Your task to perform on an android device: add a contact in the contacts app Image 0: 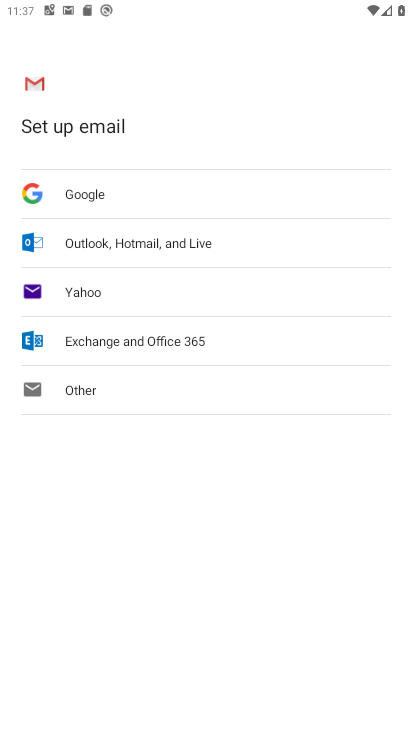
Step 0: press home button
Your task to perform on an android device: add a contact in the contacts app Image 1: 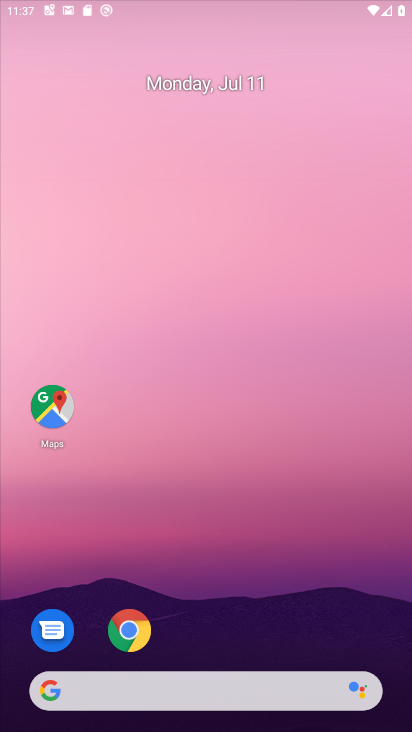
Step 1: drag from (224, 643) to (185, 265)
Your task to perform on an android device: add a contact in the contacts app Image 2: 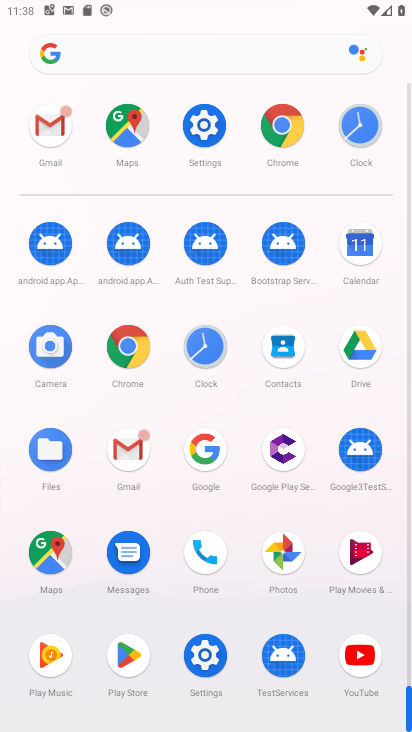
Step 2: drag from (219, 601) to (226, 292)
Your task to perform on an android device: add a contact in the contacts app Image 3: 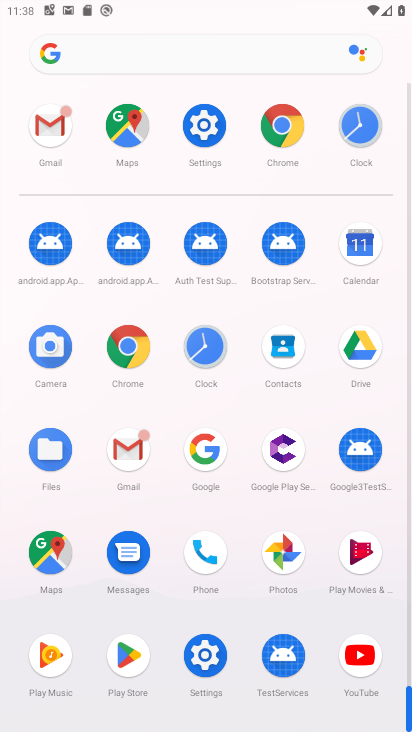
Step 3: click (288, 358)
Your task to perform on an android device: add a contact in the contacts app Image 4: 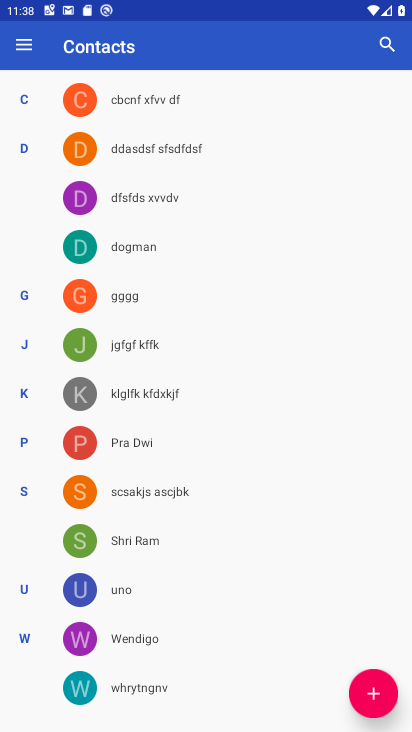
Step 4: click (367, 701)
Your task to perform on an android device: add a contact in the contacts app Image 5: 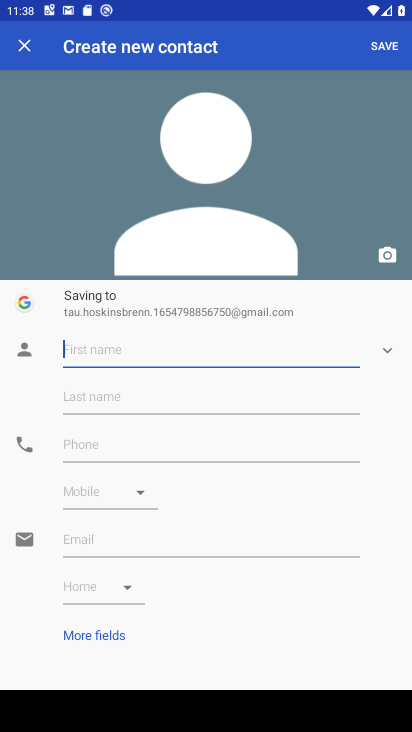
Step 5: type "hggmbvch"
Your task to perform on an android device: add a contact in the contacts app Image 6: 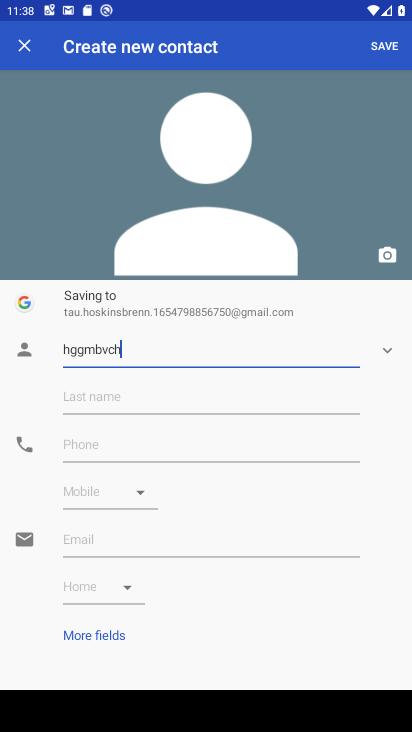
Step 6: click (283, 445)
Your task to perform on an android device: add a contact in the contacts app Image 7: 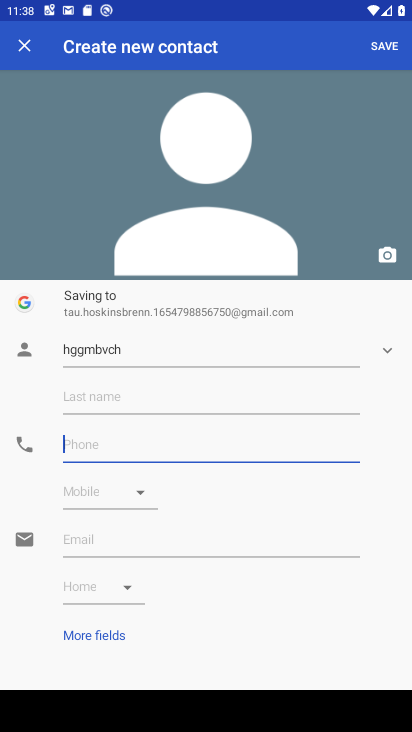
Step 7: type "9865564"
Your task to perform on an android device: add a contact in the contacts app Image 8: 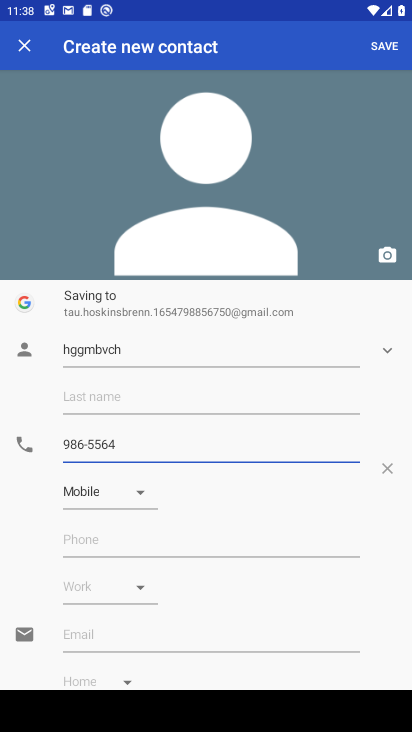
Step 8: click (386, 45)
Your task to perform on an android device: add a contact in the contacts app Image 9: 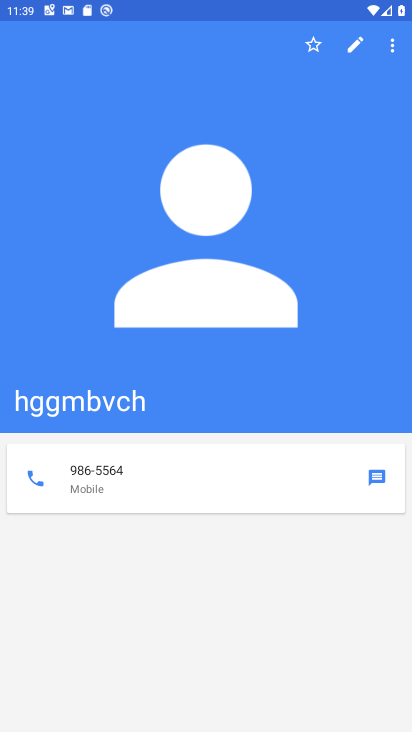
Step 9: task complete